Your task to perform on an android device: check google app version Image 0: 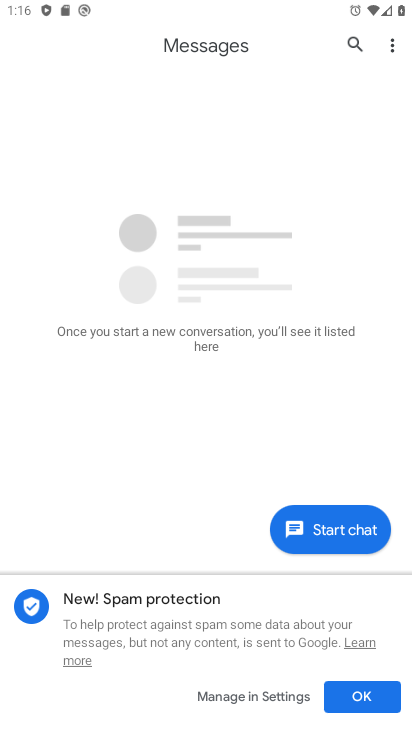
Step 0: press home button
Your task to perform on an android device: check google app version Image 1: 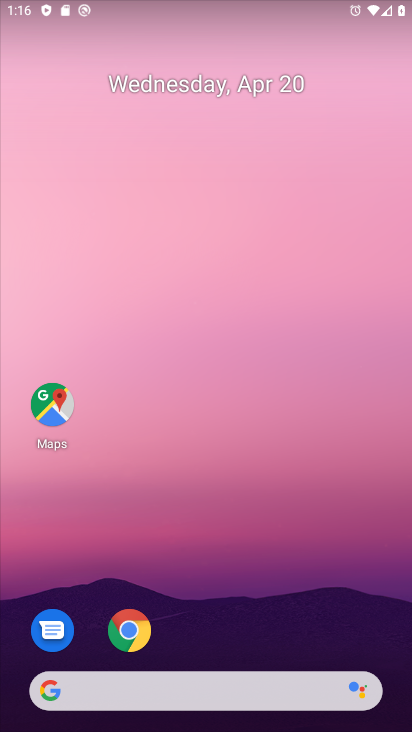
Step 1: drag from (252, 558) to (263, 248)
Your task to perform on an android device: check google app version Image 2: 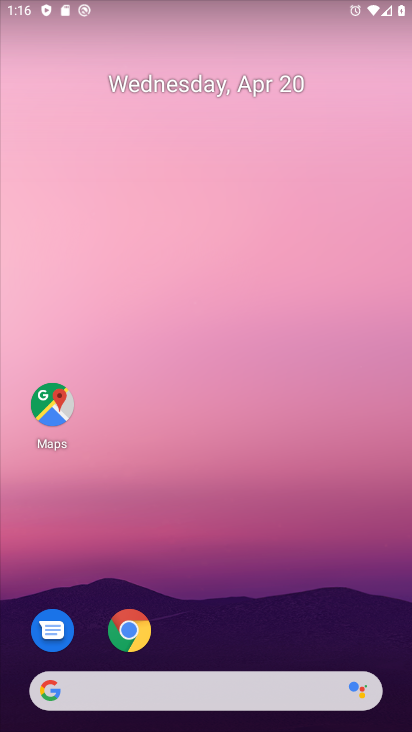
Step 2: drag from (193, 468) to (134, 46)
Your task to perform on an android device: check google app version Image 3: 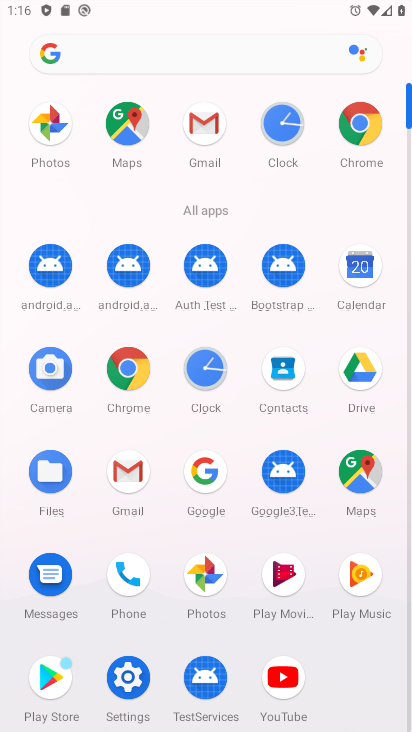
Step 3: click (211, 478)
Your task to perform on an android device: check google app version Image 4: 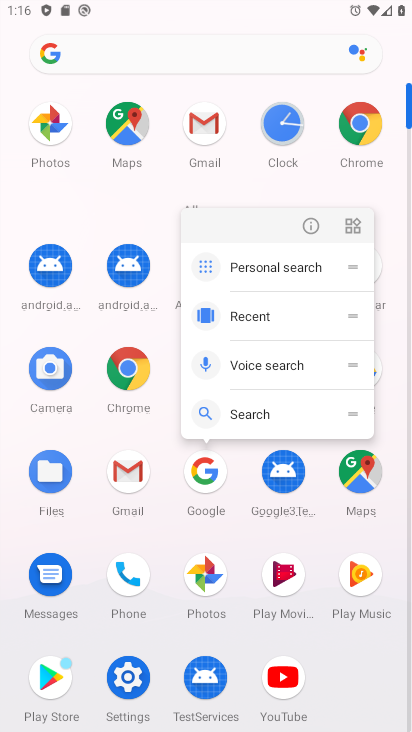
Step 4: click (211, 473)
Your task to perform on an android device: check google app version Image 5: 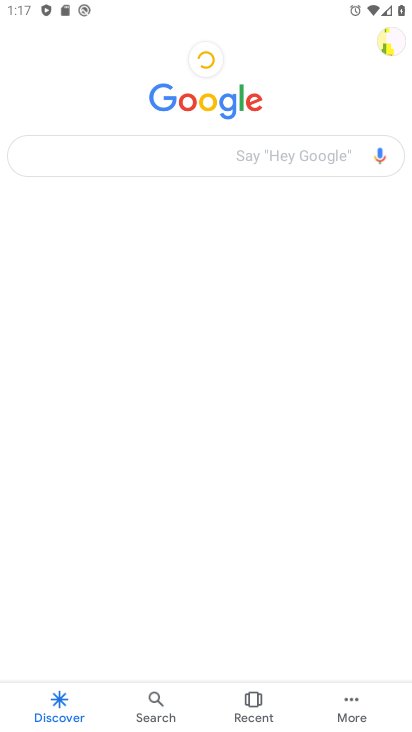
Step 5: click (346, 703)
Your task to perform on an android device: check google app version Image 6: 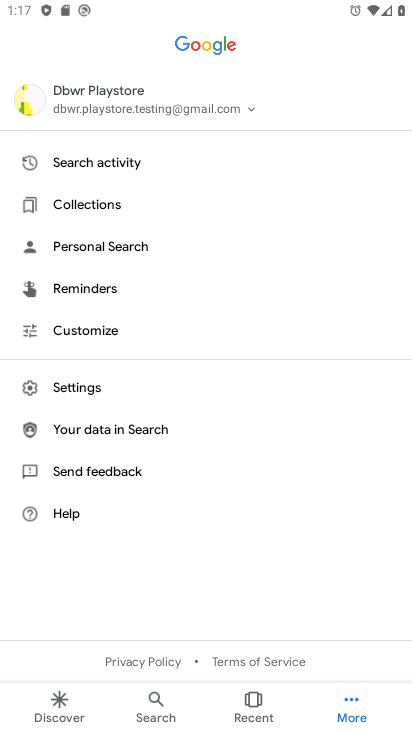
Step 6: click (80, 384)
Your task to perform on an android device: check google app version Image 7: 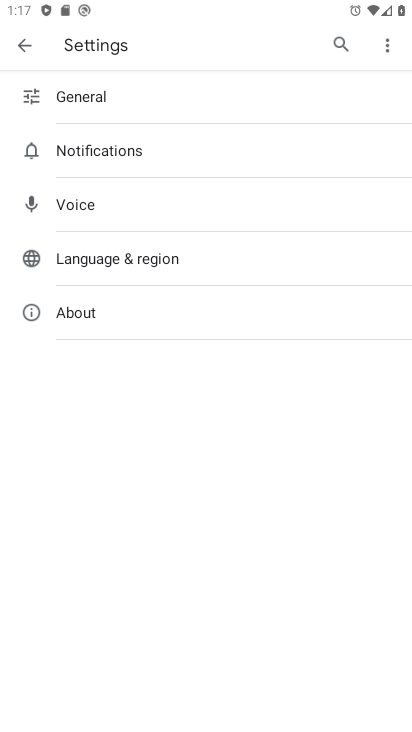
Step 7: click (68, 308)
Your task to perform on an android device: check google app version Image 8: 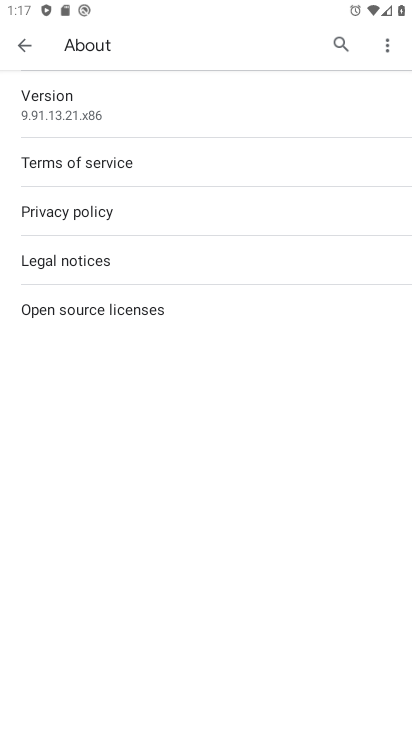
Step 8: click (96, 107)
Your task to perform on an android device: check google app version Image 9: 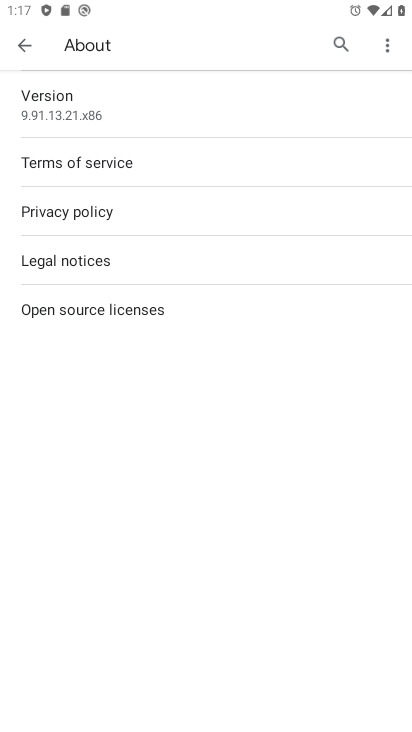
Step 9: task complete